Your task to perform on an android device: Open the map Image 0: 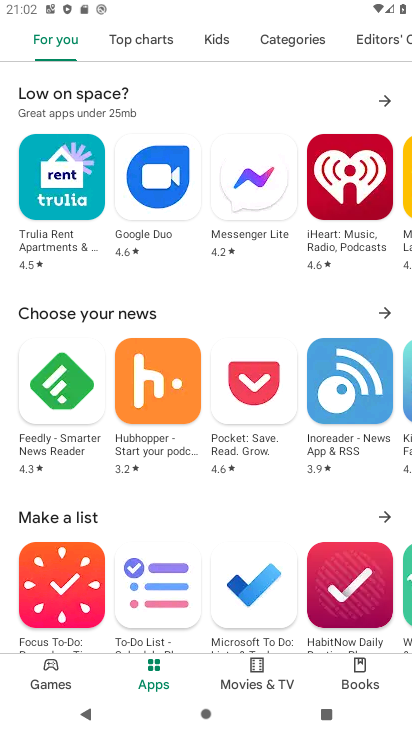
Step 0: press home button
Your task to perform on an android device: Open the map Image 1: 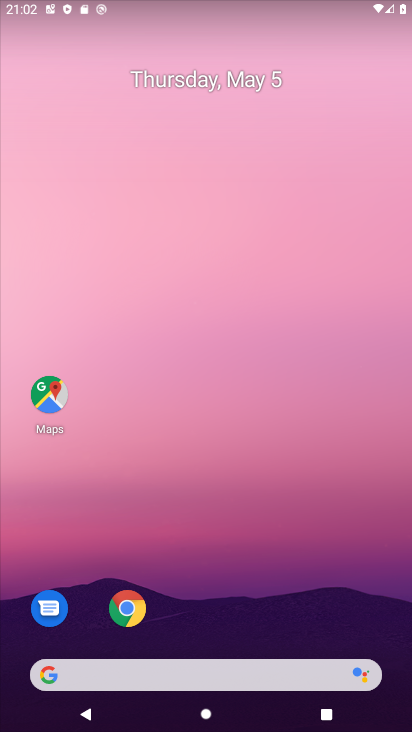
Step 1: drag from (217, 680) to (197, 34)
Your task to perform on an android device: Open the map Image 2: 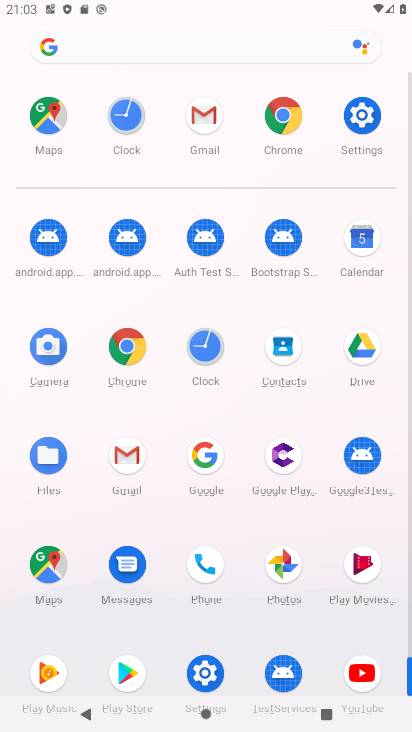
Step 2: click (54, 570)
Your task to perform on an android device: Open the map Image 3: 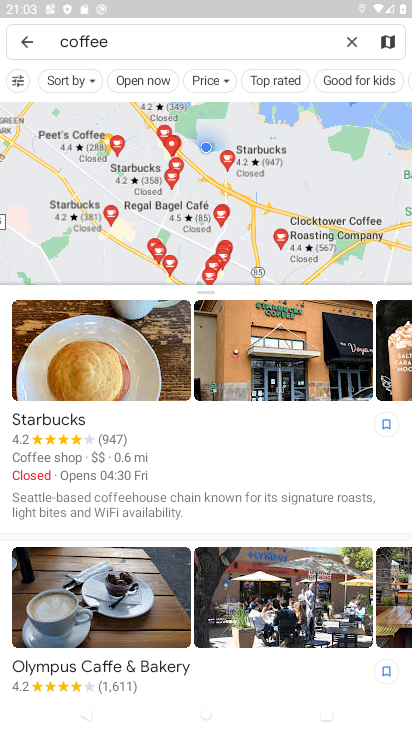
Step 3: task complete